Your task to perform on an android device: Open calendar and show me the second week of next month Image 0: 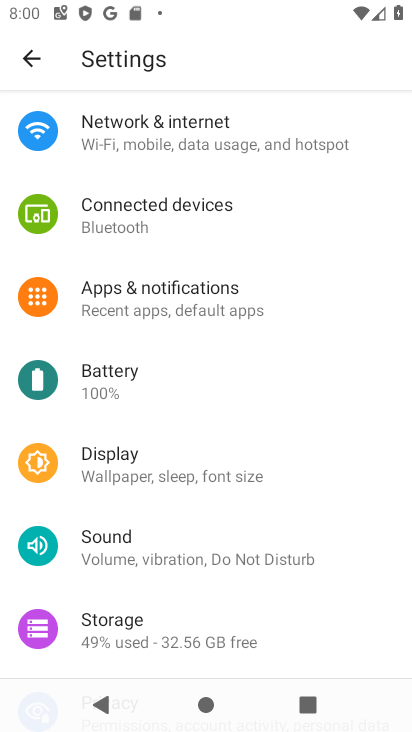
Step 0: press home button
Your task to perform on an android device: Open calendar and show me the second week of next month Image 1: 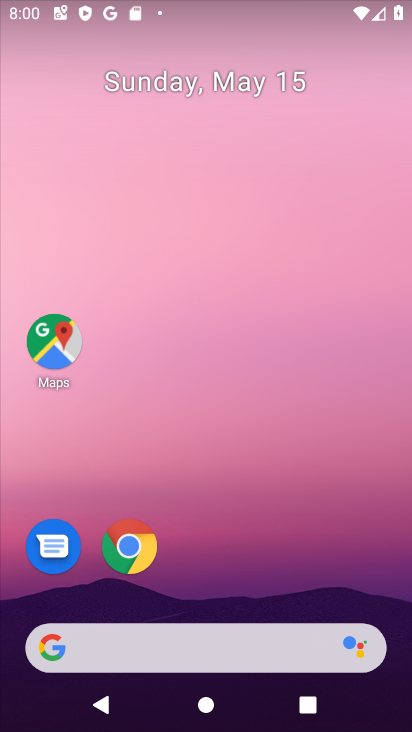
Step 1: drag from (191, 476) to (200, 69)
Your task to perform on an android device: Open calendar and show me the second week of next month Image 2: 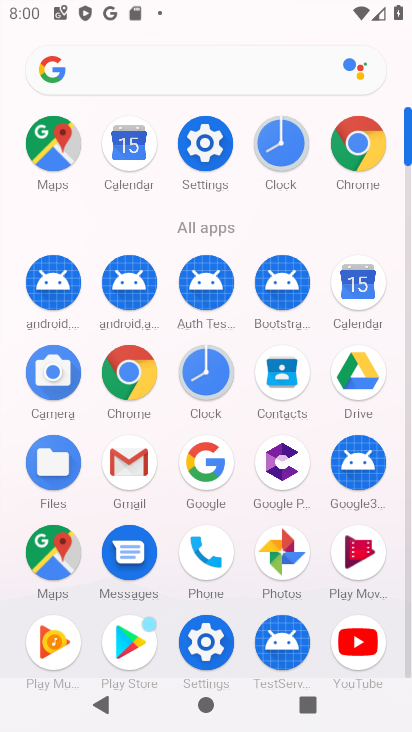
Step 2: click (140, 155)
Your task to perform on an android device: Open calendar and show me the second week of next month Image 3: 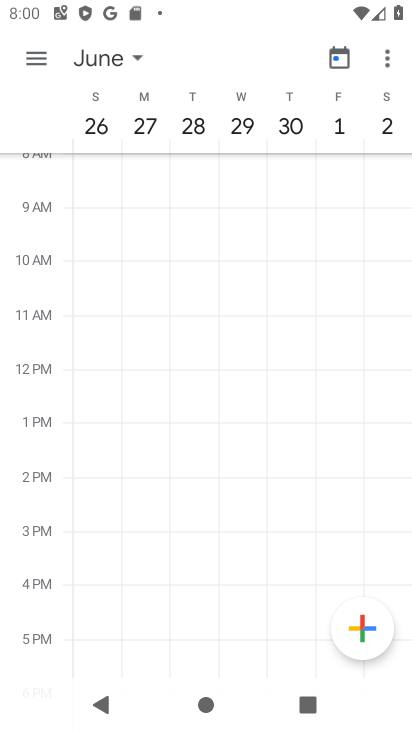
Step 3: task complete